Your task to perform on an android device: turn off improve location accuracy Image 0: 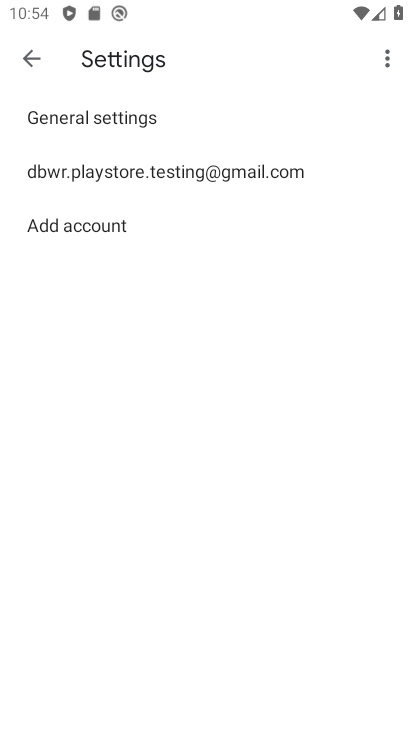
Step 0: press home button
Your task to perform on an android device: turn off improve location accuracy Image 1: 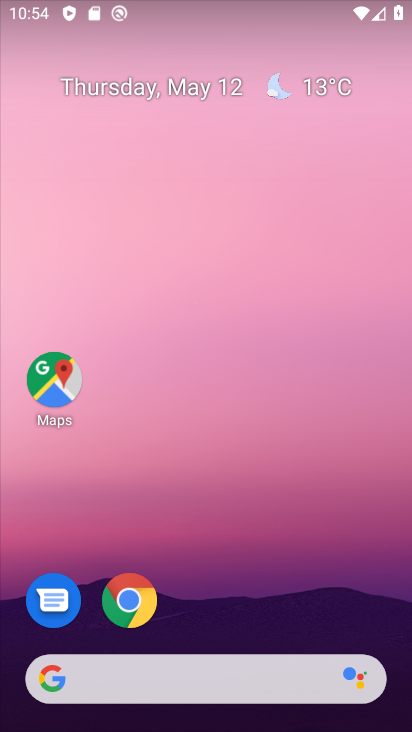
Step 1: drag from (389, 629) to (247, 70)
Your task to perform on an android device: turn off improve location accuracy Image 2: 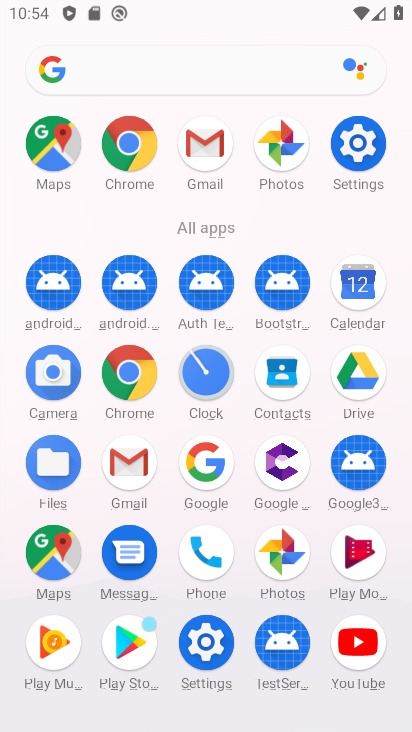
Step 2: click (211, 642)
Your task to perform on an android device: turn off improve location accuracy Image 3: 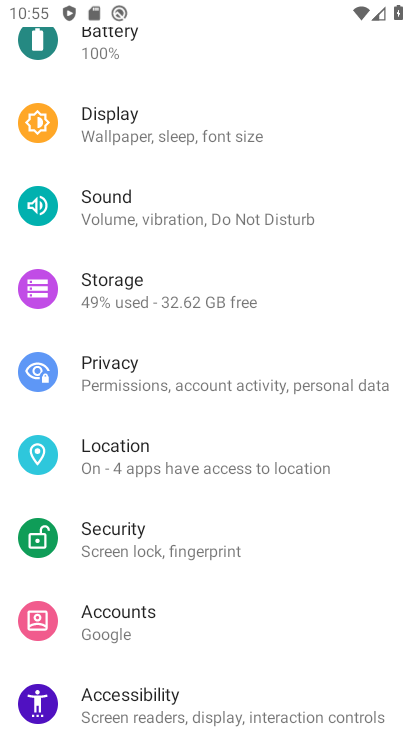
Step 3: drag from (360, 126) to (365, 300)
Your task to perform on an android device: turn off improve location accuracy Image 4: 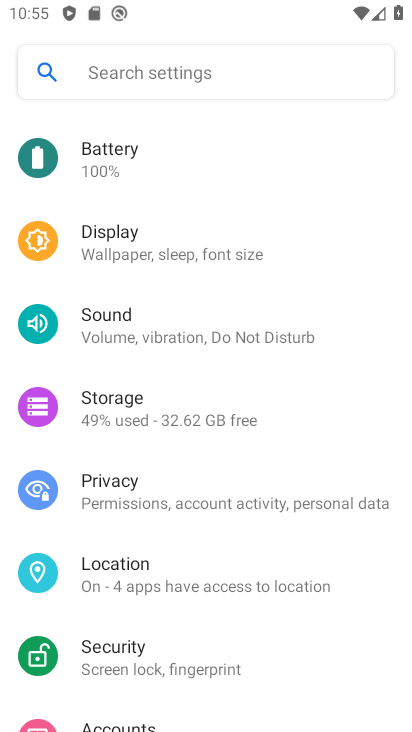
Step 4: click (136, 560)
Your task to perform on an android device: turn off improve location accuracy Image 5: 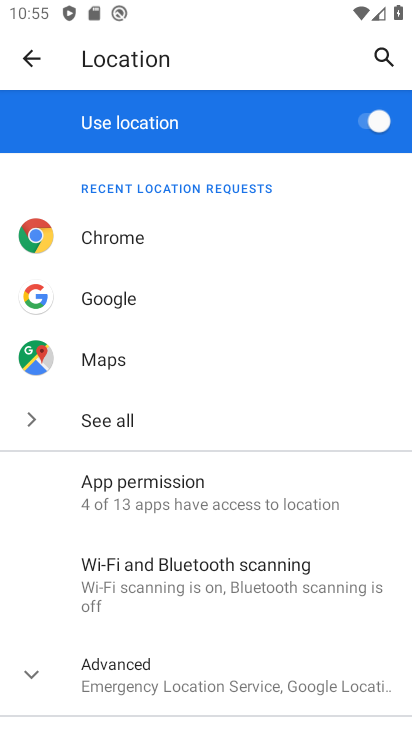
Step 5: click (38, 672)
Your task to perform on an android device: turn off improve location accuracy Image 6: 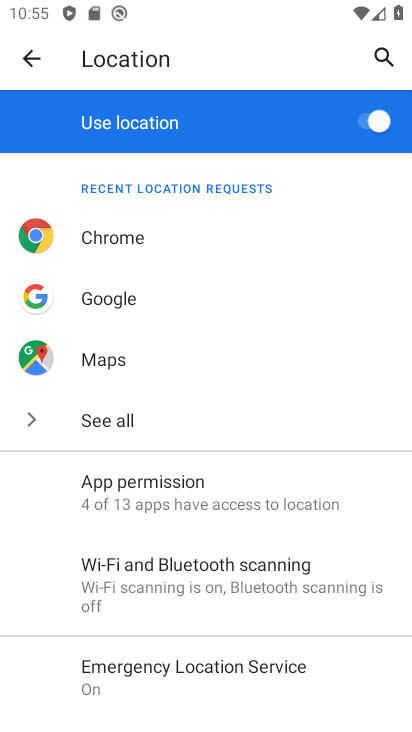
Step 6: drag from (321, 667) to (307, 177)
Your task to perform on an android device: turn off improve location accuracy Image 7: 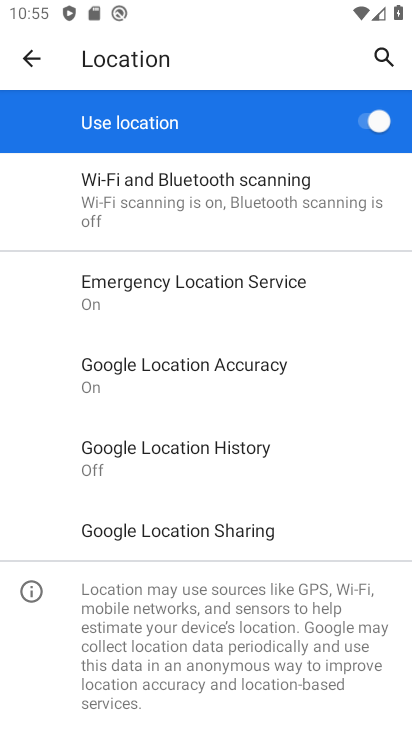
Step 7: click (142, 373)
Your task to perform on an android device: turn off improve location accuracy Image 8: 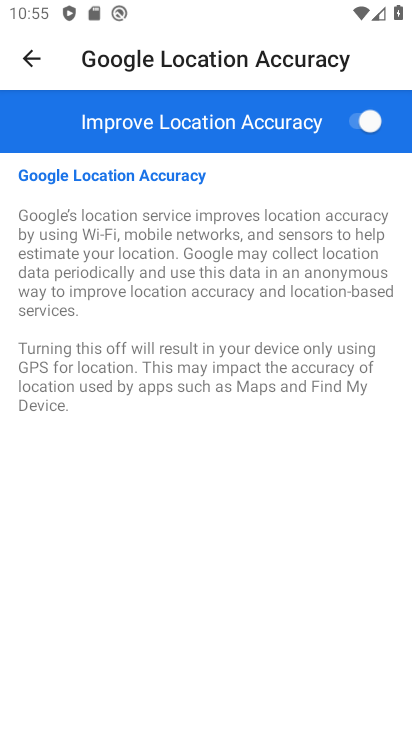
Step 8: click (357, 124)
Your task to perform on an android device: turn off improve location accuracy Image 9: 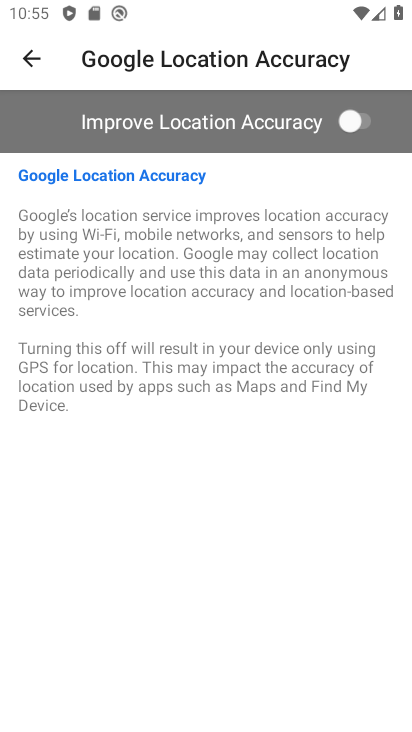
Step 9: task complete